Your task to perform on an android device: Go to network settings Image 0: 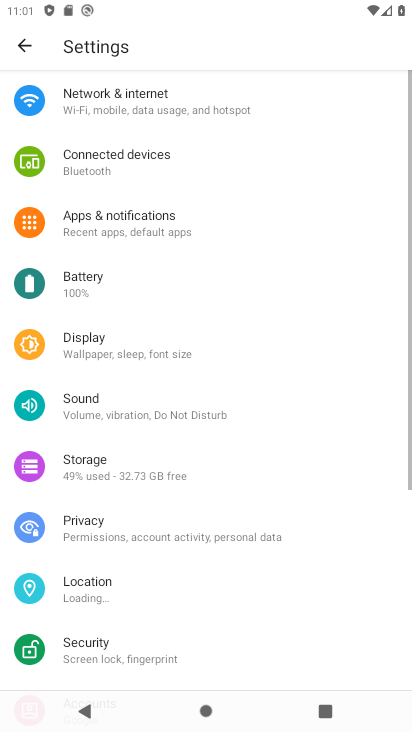
Step 0: press back button
Your task to perform on an android device: Go to network settings Image 1: 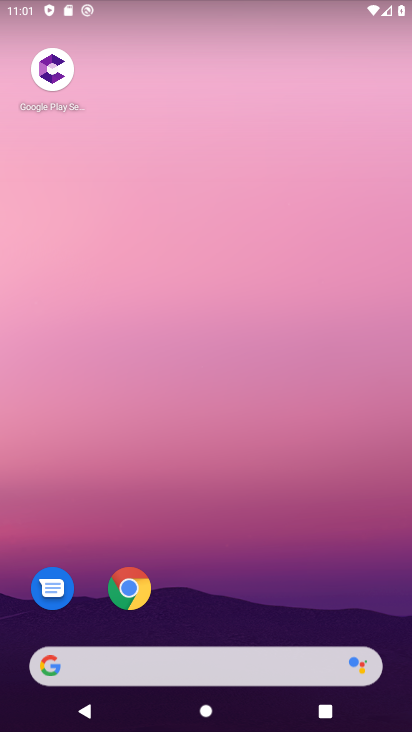
Step 1: drag from (187, 481) to (215, 122)
Your task to perform on an android device: Go to network settings Image 2: 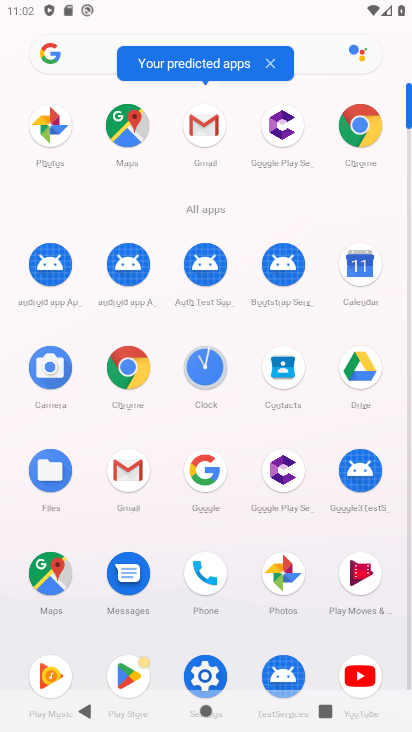
Step 2: click (210, 667)
Your task to perform on an android device: Go to network settings Image 3: 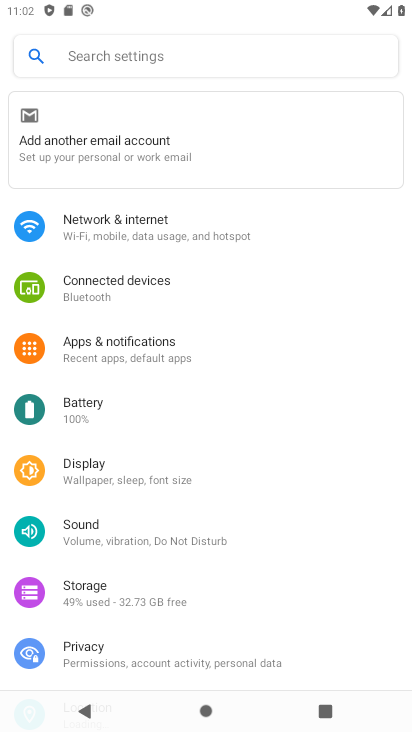
Step 3: click (168, 233)
Your task to perform on an android device: Go to network settings Image 4: 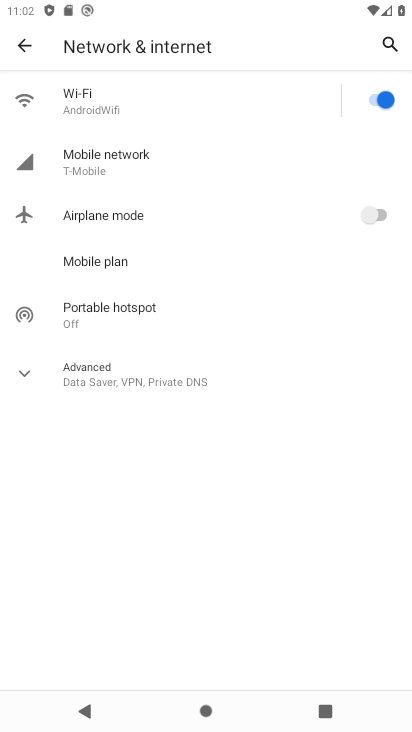
Step 4: task complete